Your task to perform on an android device: move an email to a new category in the gmail app Image 0: 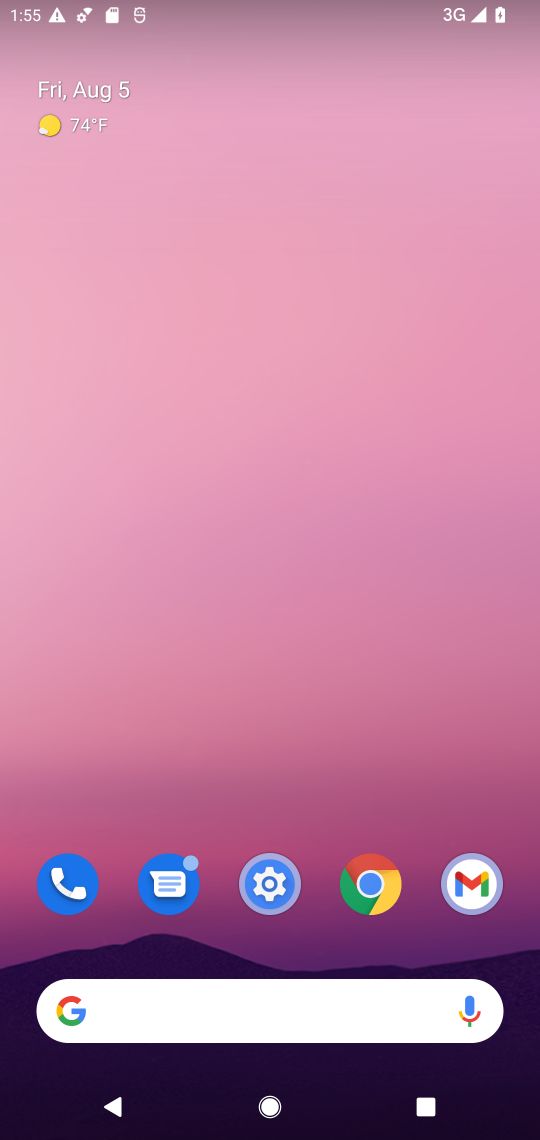
Step 0: drag from (315, 962) to (279, 31)
Your task to perform on an android device: move an email to a new category in the gmail app Image 1: 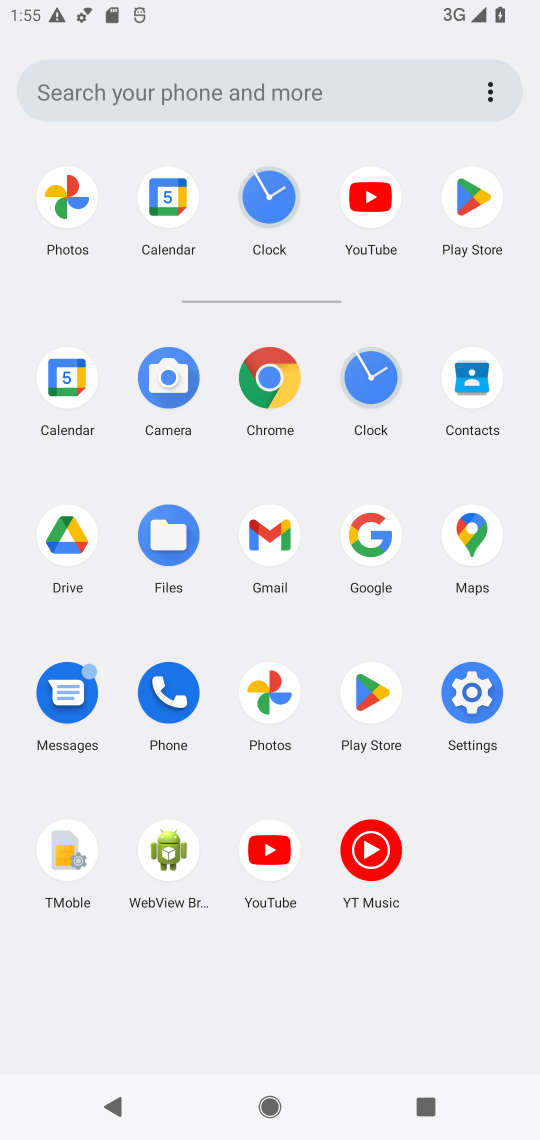
Step 1: click (271, 545)
Your task to perform on an android device: move an email to a new category in the gmail app Image 2: 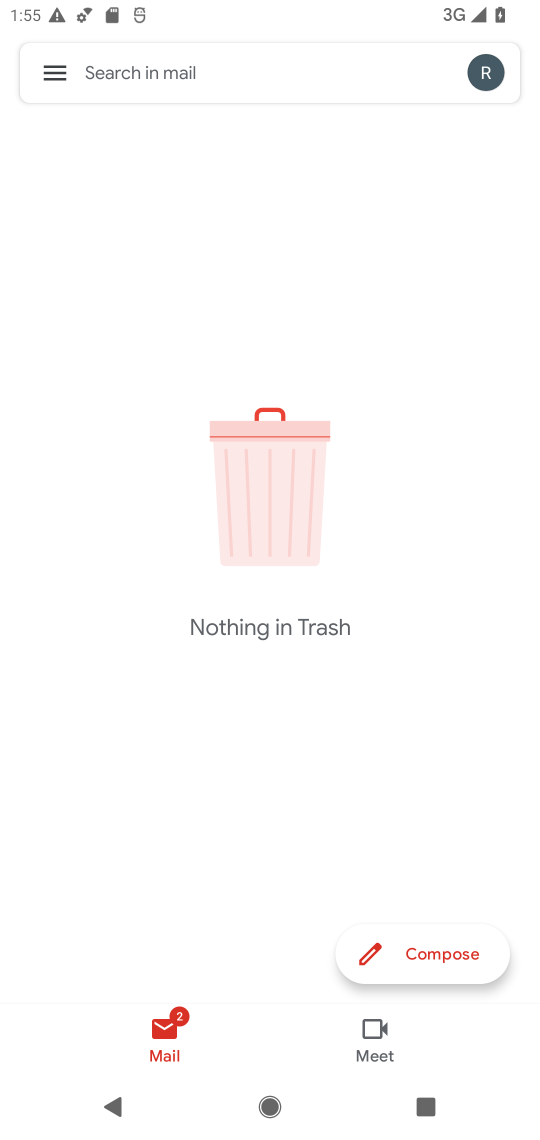
Step 2: task complete